Your task to perform on an android device: manage bookmarks in the chrome app Image 0: 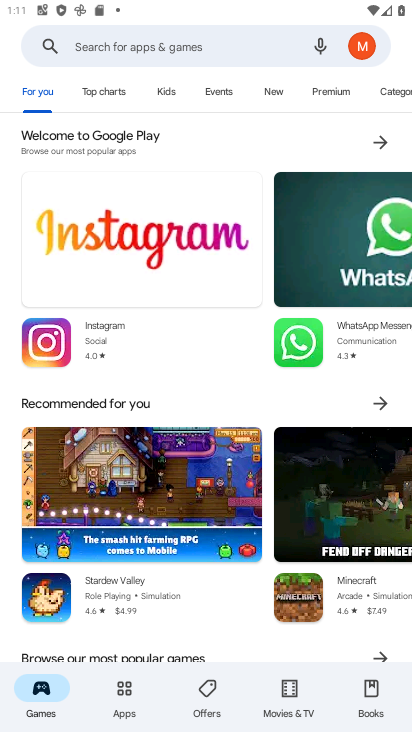
Step 0: press home button
Your task to perform on an android device: manage bookmarks in the chrome app Image 1: 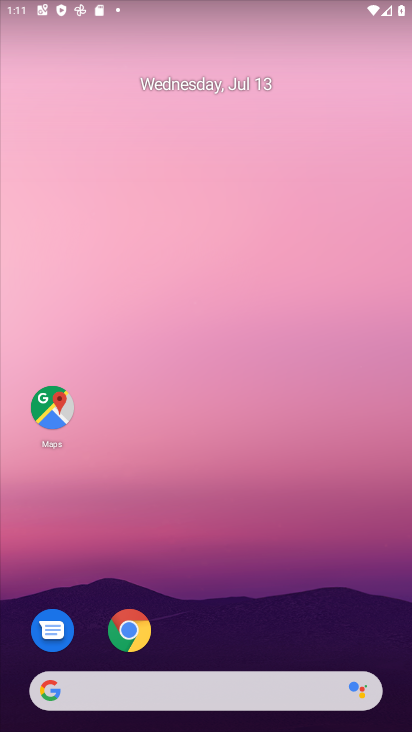
Step 1: drag from (386, 624) to (303, 12)
Your task to perform on an android device: manage bookmarks in the chrome app Image 2: 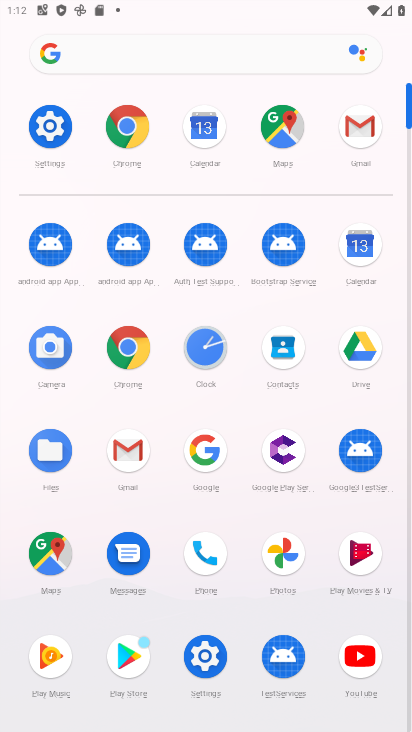
Step 2: click (115, 356)
Your task to perform on an android device: manage bookmarks in the chrome app Image 3: 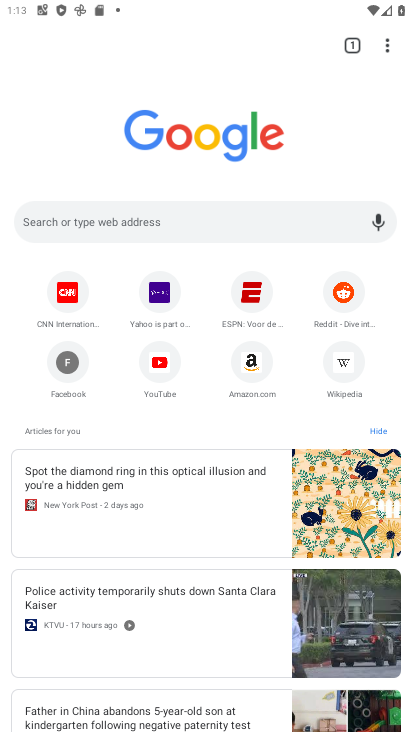
Step 3: task complete